Your task to perform on an android device: change notification settings in the gmail app Image 0: 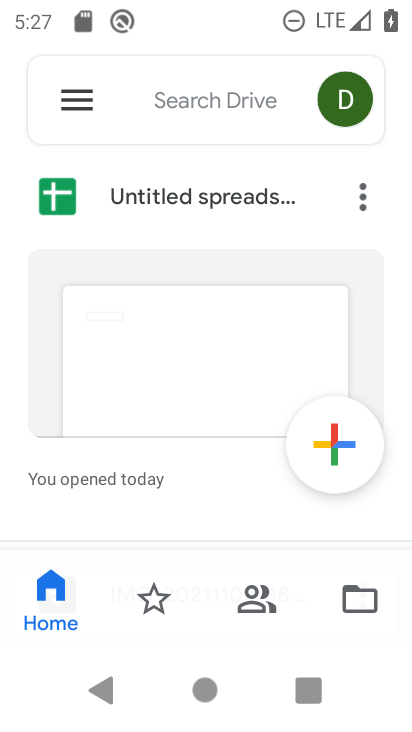
Step 0: press home button
Your task to perform on an android device: change notification settings in the gmail app Image 1: 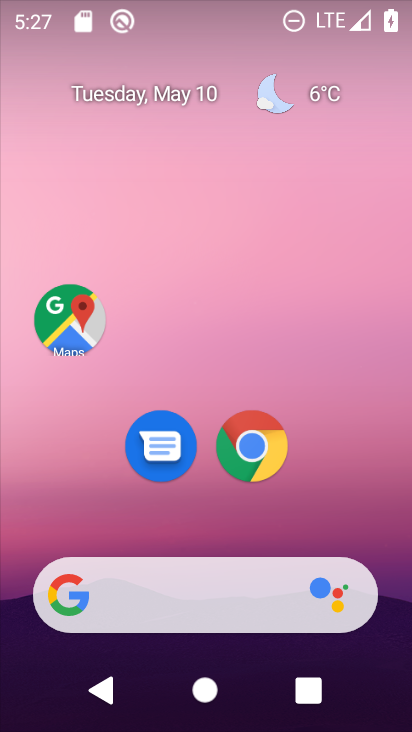
Step 1: drag from (279, 533) to (200, 91)
Your task to perform on an android device: change notification settings in the gmail app Image 2: 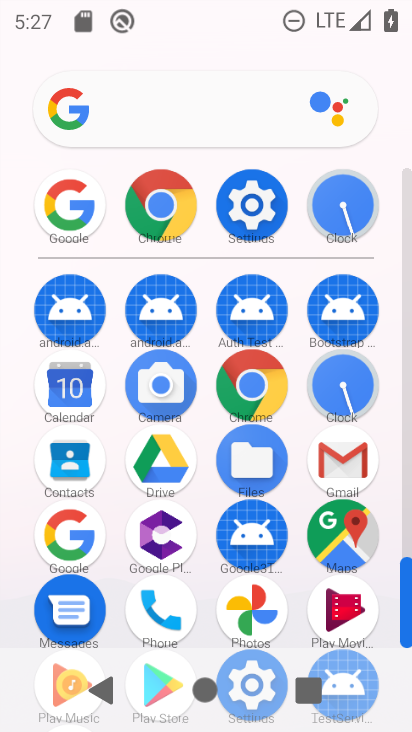
Step 2: click (341, 482)
Your task to perform on an android device: change notification settings in the gmail app Image 3: 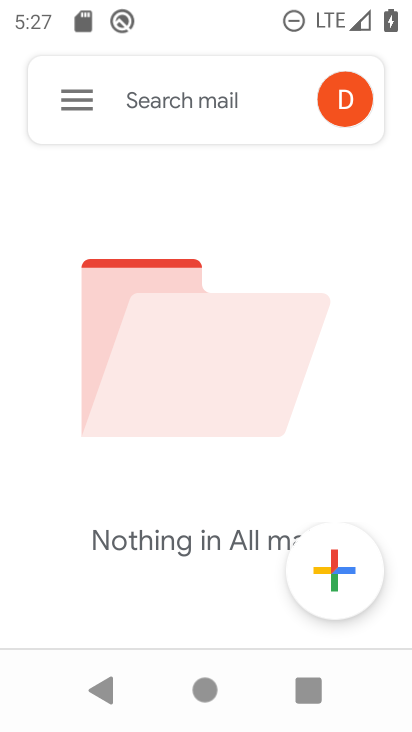
Step 3: click (78, 99)
Your task to perform on an android device: change notification settings in the gmail app Image 4: 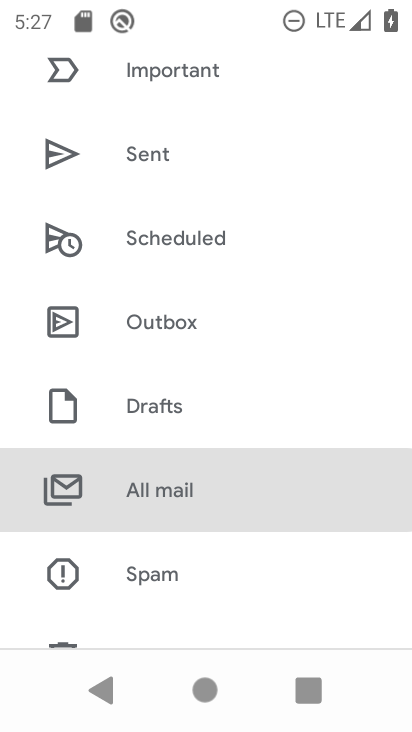
Step 4: drag from (241, 505) to (253, 231)
Your task to perform on an android device: change notification settings in the gmail app Image 5: 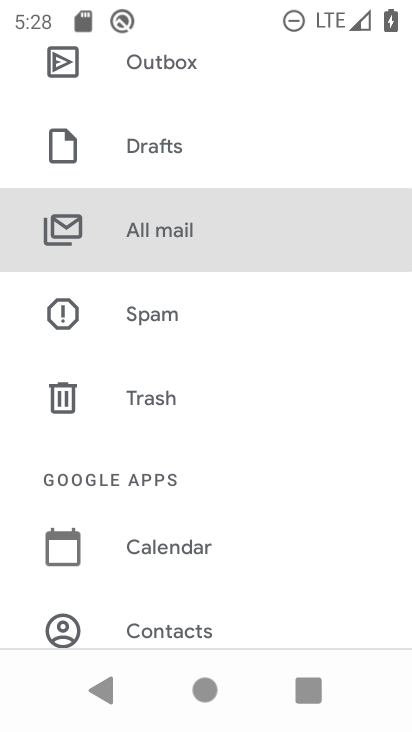
Step 5: drag from (254, 167) to (200, 599)
Your task to perform on an android device: change notification settings in the gmail app Image 6: 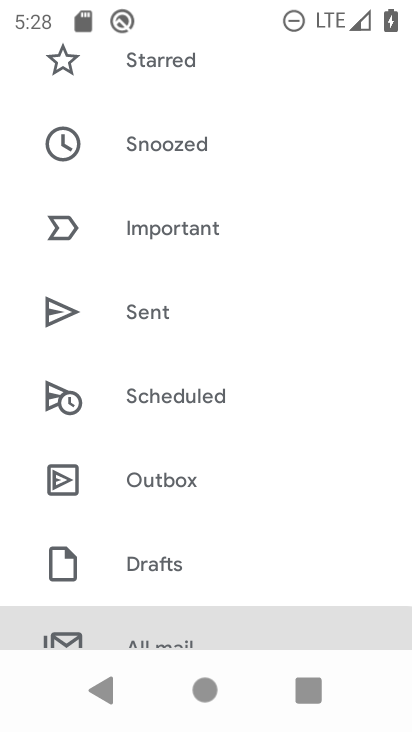
Step 6: drag from (220, 523) to (232, 135)
Your task to perform on an android device: change notification settings in the gmail app Image 7: 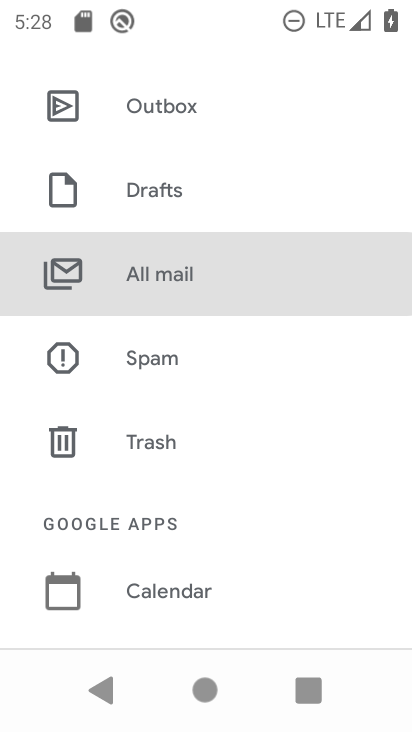
Step 7: drag from (196, 579) to (229, 270)
Your task to perform on an android device: change notification settings in the gmail app Image 8: 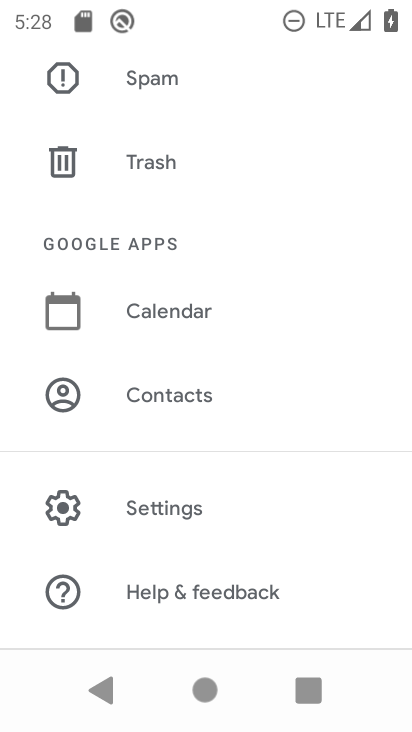
Step 8: click (201, 495)
Your task to perform on an android device: change notification settings in the gmail app Image 9: 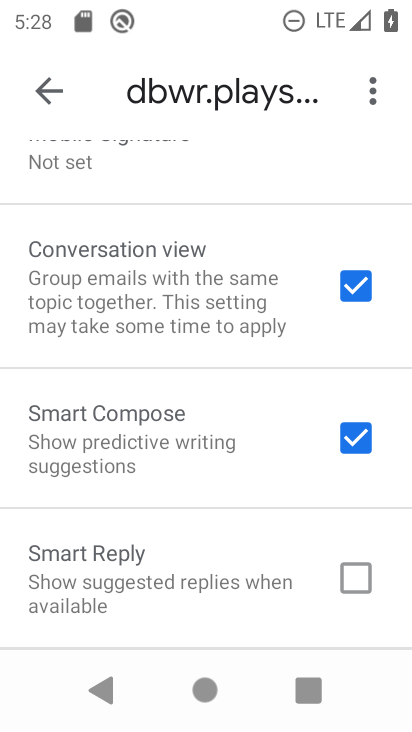
Step 9: drag from (162, 253) to (129, 727)
Your task to perform on an android device: change notification settings in the gmail app Image 10: 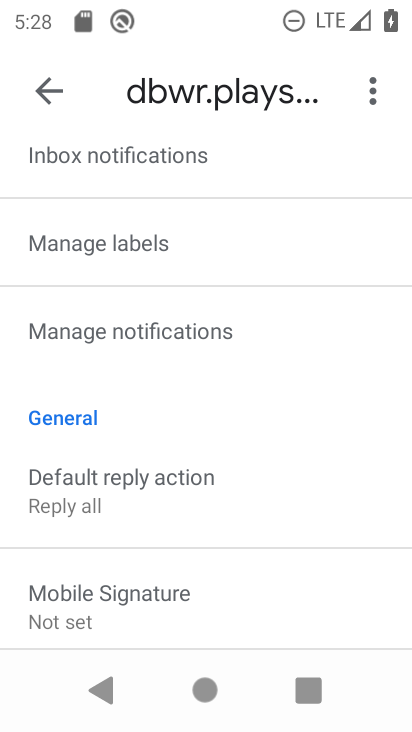
Step 10: click (143, 332)
Your task to perform on an android device: change notification settings in the gmail app Image 11: 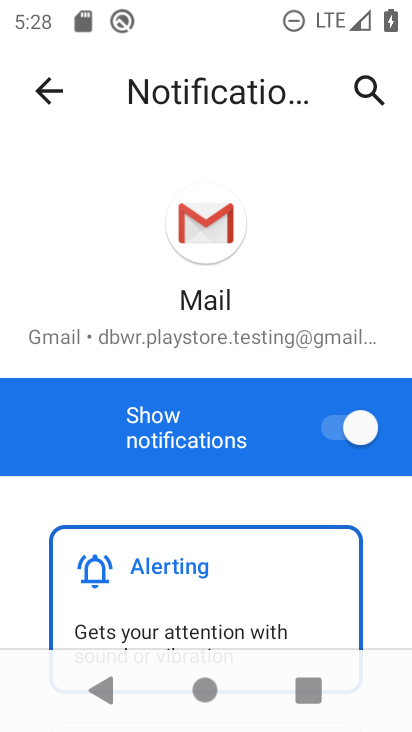
Step 11: click (361, 432)
Your task to perform on an android device: change notification settings in the gmail app Image 12: 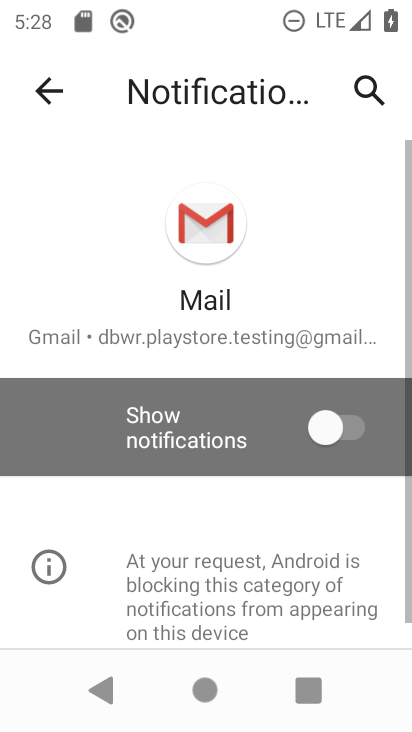
Step 12: task complete